Your task to perform on an android device: toggle notifications settings in the gmail app Image 0: 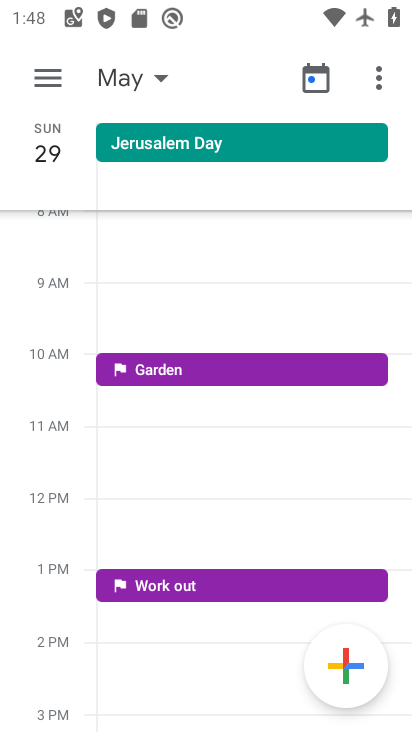
Step 0: press home button
Your task to perform on an android device: toggle notifications settings in the gmail app Image 1: 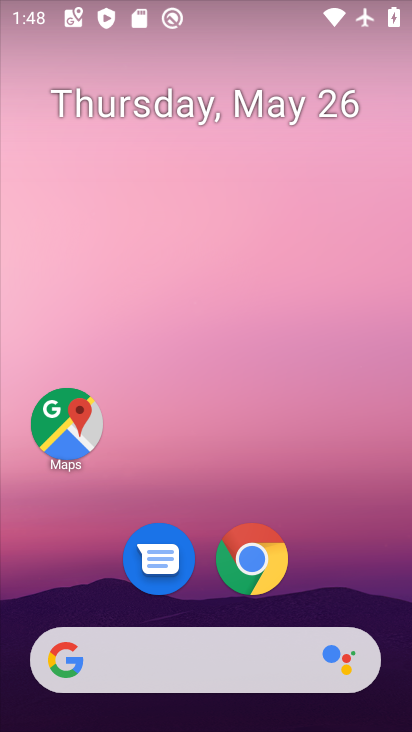
Step 1: drag from (209, 623) to (335, 112)
Your task to perform on an android device: toggle notifications settings in the gmail app Image 2: 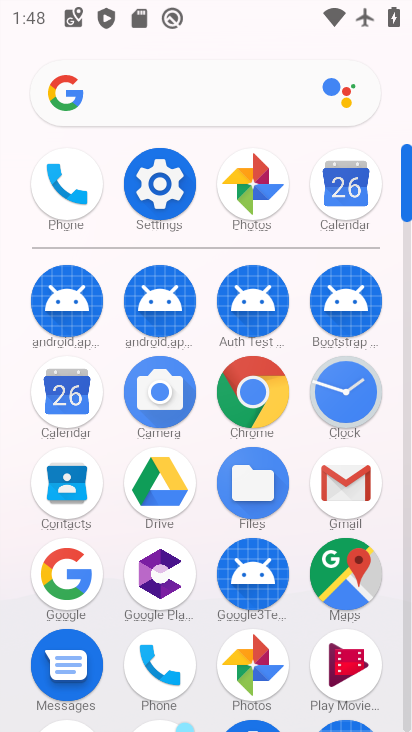
Step 2: click (347, 488)
Your task to perform on an android device: toggle notifications settings in the gmail app Image 3: 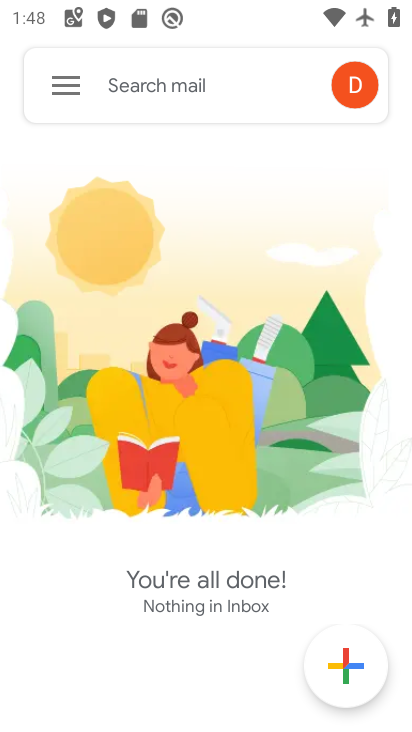
Step 3: click (64, 88)
Your task to perform on an android device: toggle notifications settings in the gmail app Image 4: 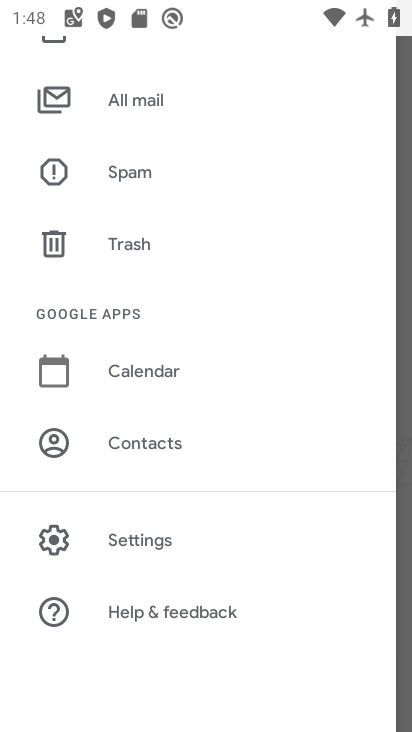
Step 4: click (137, 548)
Your task to perform on an android device: toggle notifications settings in the gmail app Image 5: 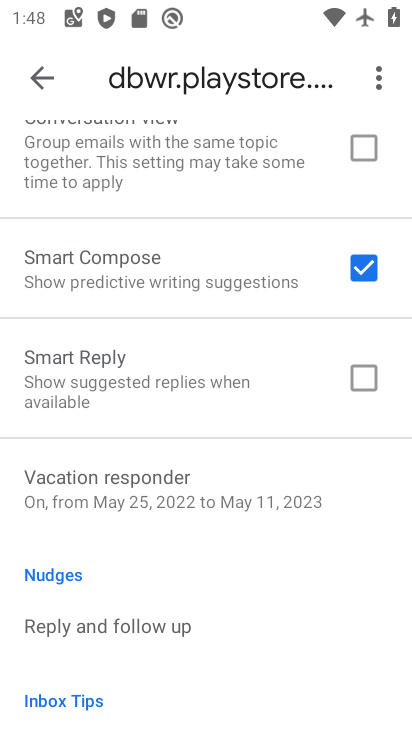
Step 5: drag from (237, 234) to (284, 592)
Your task to perform on an android device: toggle notifications settings in the gmail app Image 6: 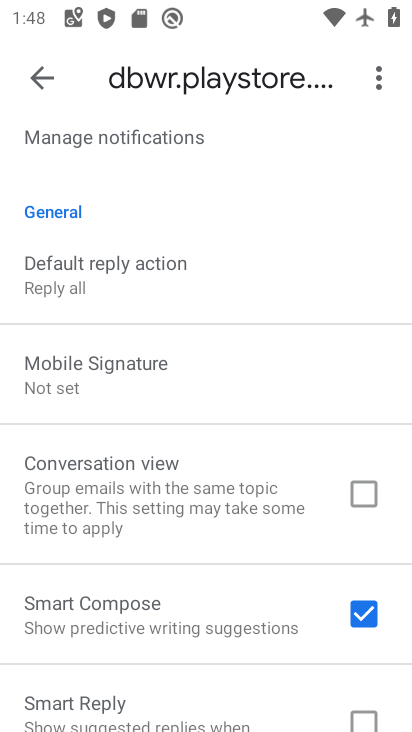
Step 6: drag from (259, 224) to (240, 622)
Your task to perform on an android device: toggle notifications settings in the gmail app Image 7: 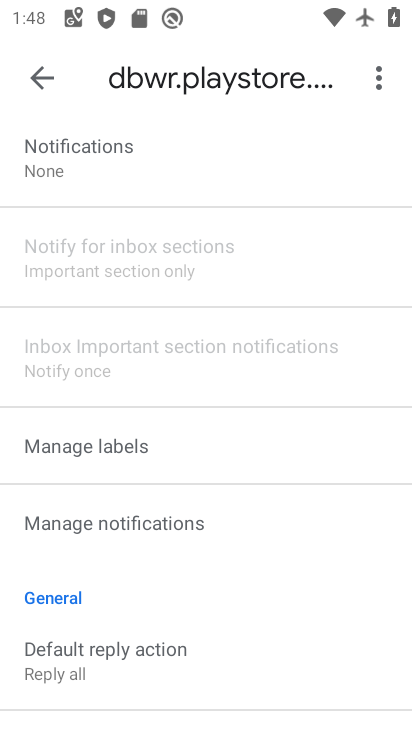
Step 7: drag from (180, 273) to (179, 551)
Your task to perform on an android device: toggle notifications settings in the gmail app Image 8: 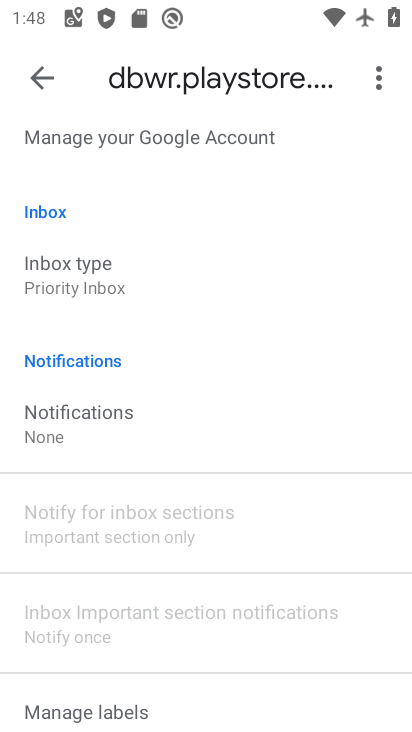
Step 8: click (62, 430)
Your task to perform on an android device: toggle notifications settings in the gmail app Image 9: 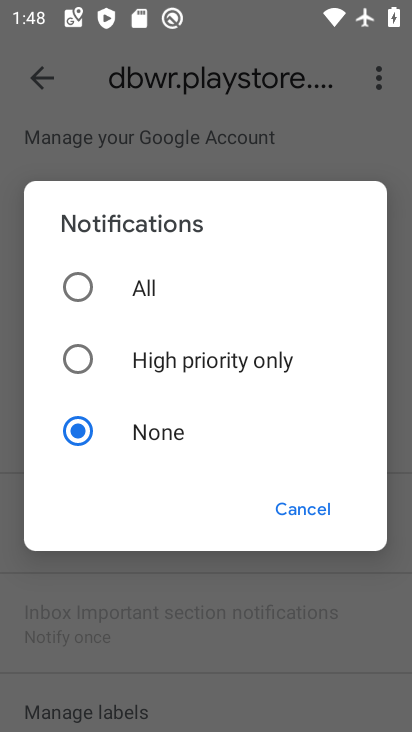
Step 9: click (80, 285)
Your task to perform on an android device: toggle notifications settings in the gmail app Image 10: 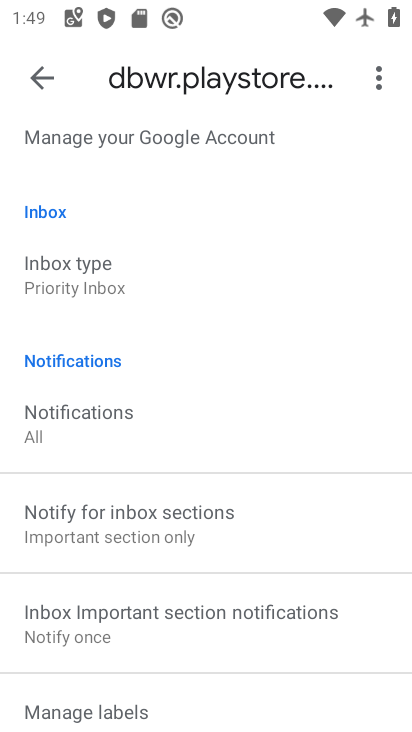
Step 10: task complete